Your task to perform on an android device: What's on my calendar today? Image 0: 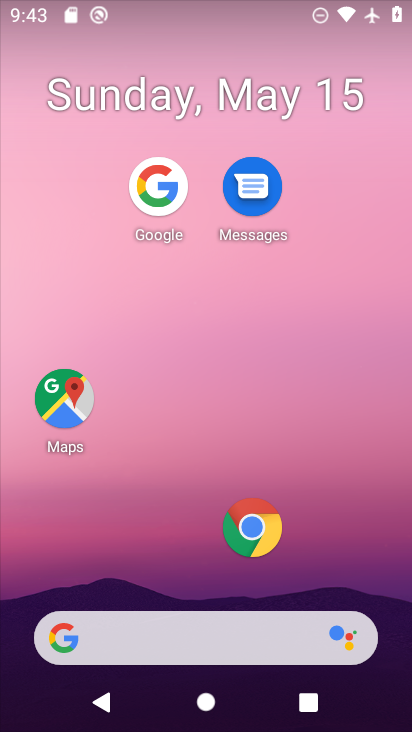
Step 0: drag from (158, 634) to (290, 100)
Your task to perform on an android device: What's on my calendar today? Image 1: 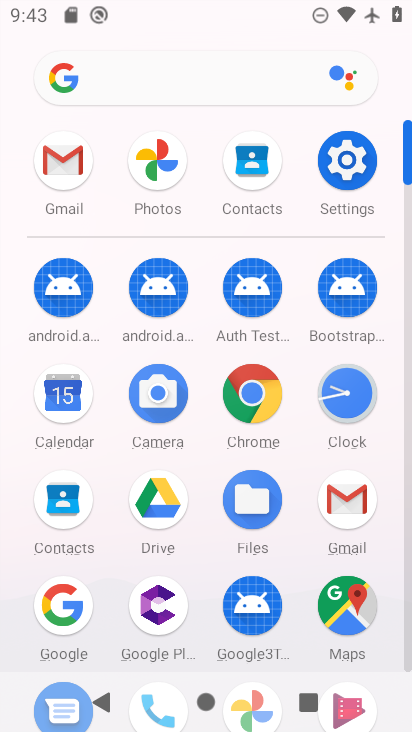
Step 1: click (56, 404)
Your task to perform on an android device: What's on my calendar today? Image 2: 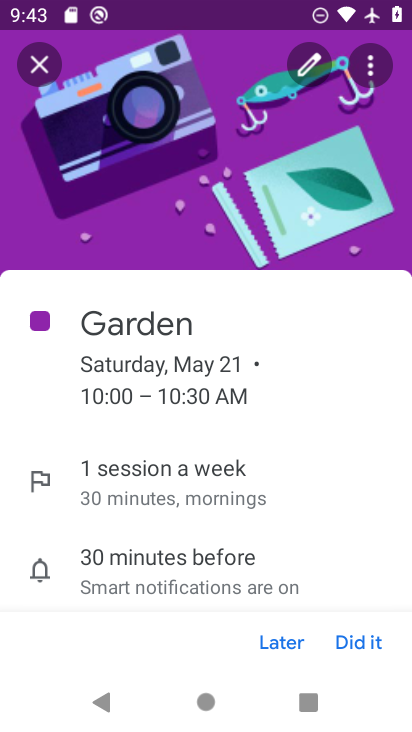
Step 2: click (35, 65)
Your task to perform on an android device: What's on my calendar today? Image 3: 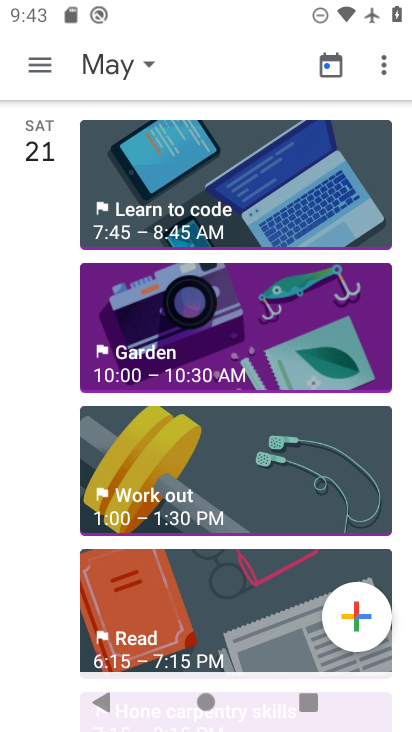
Step 3: click (116, 67)
Your task to perform on an android device: What's on my calendar today? Image 4: 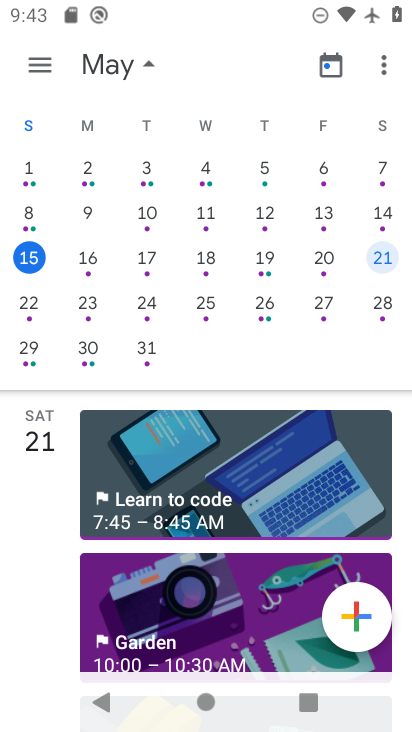
Step 4: click (30, 259)
Your task to perform on an android device: What's on my calendar today? Image 5: 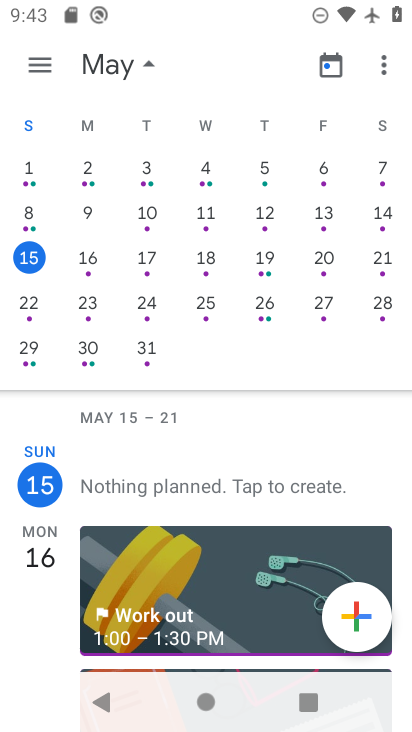
Step 5: click (48, 64)
Your task to perform on an android device: What's on my calendar today? Image 6: 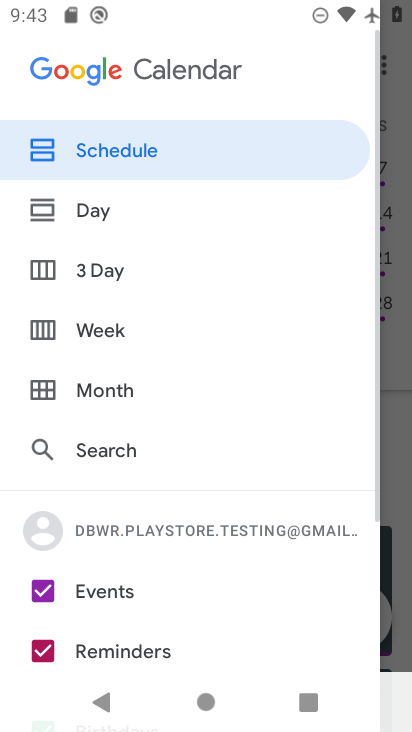
Step 6: click (124, 151)
Your task to perform on an android device: What's on my calendar today? Image 7: 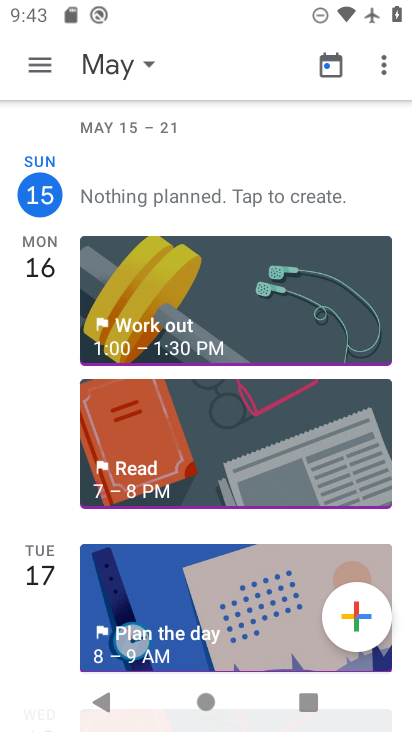
Step 7: task complete